Your task to perform on an android device: snooze an email in the gmail app Image 0: 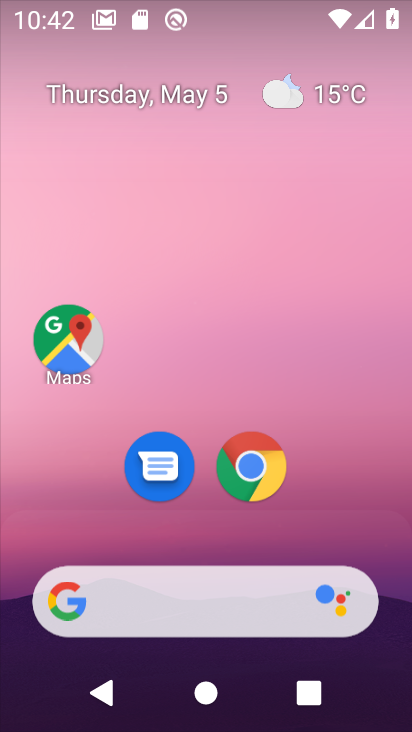
Step 0: drag from (338, 550) to (383, 309)
Your task to perform on an android device: snooze an email in the gmail app Image 1: 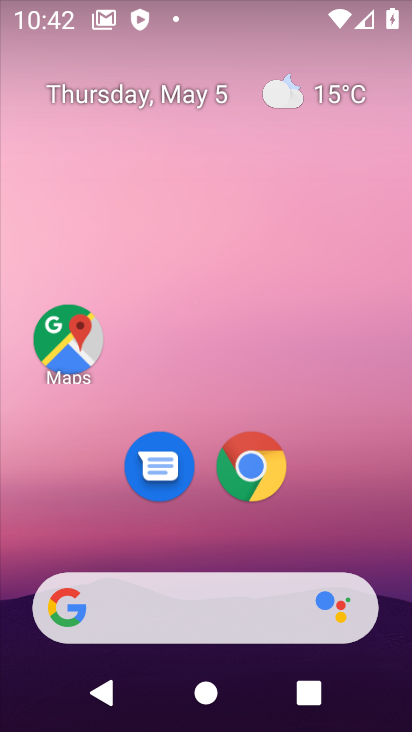
Step 1: drag from (324, 558) to (269, 45)
Your task to perform on an android device: snooze an email in the gmail app Image 2: 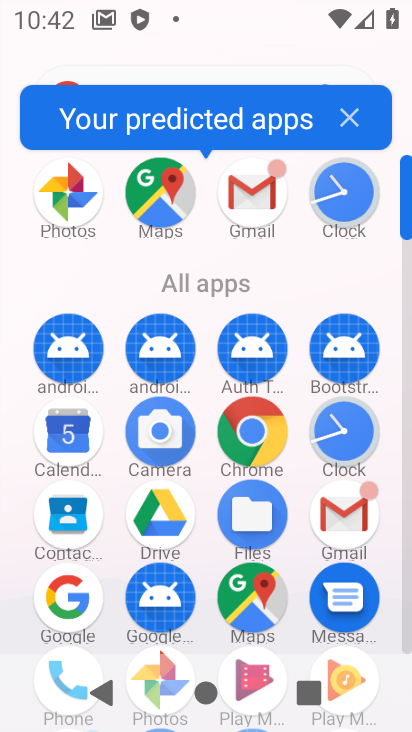
Step 2: click (343, 517)
Your task to perform on an android device: snooze an email in the gmail app Image 3: 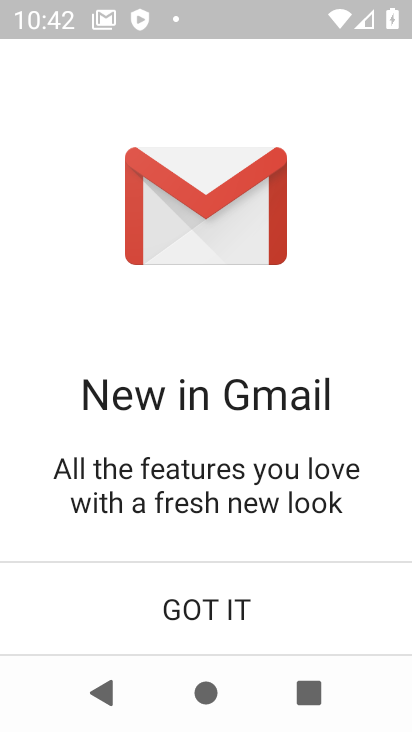
Step 3: click (292, 606)
Your task to perform on an android device: snooze an email in the gmail app Image 4: 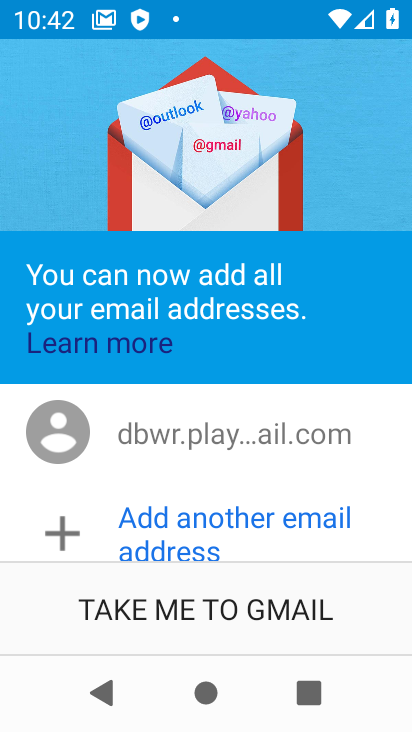
Step 4: click (220, 640)
Your task to perform on an android device: snooze an email in the gmail app Image 5: 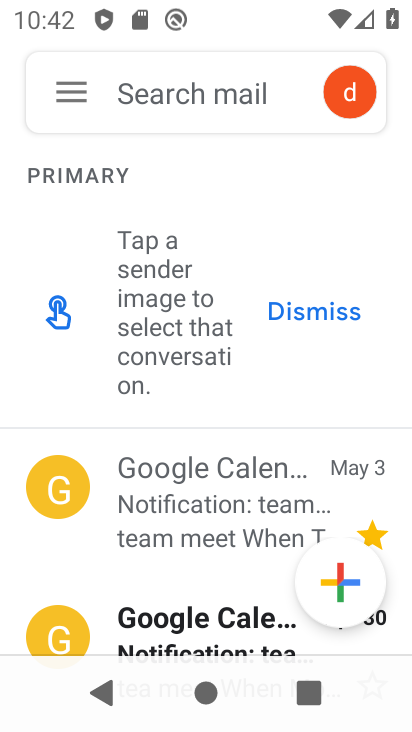
Step 5: click (232, 474)
Your task to perform on an android device: snooze an email in the gmail app Image 6: 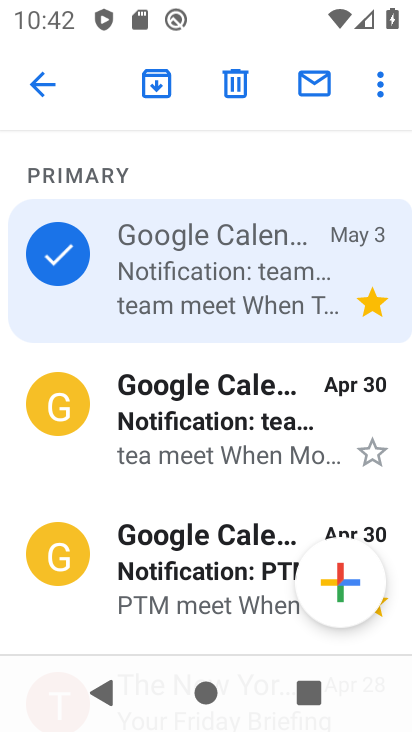
Step 6: click (383, 108)
Your task to perform on an android device: snooze an email in the gmail app Image 7: 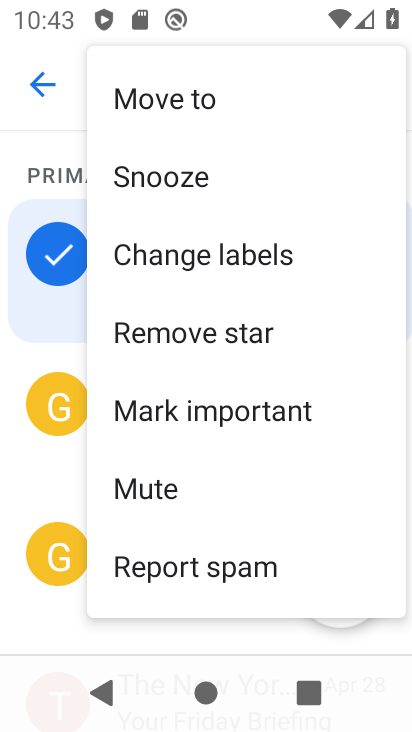
Step 7: click (205, 183)
Your task to perform on an android device: snooze an email in the gmail app Image 8: 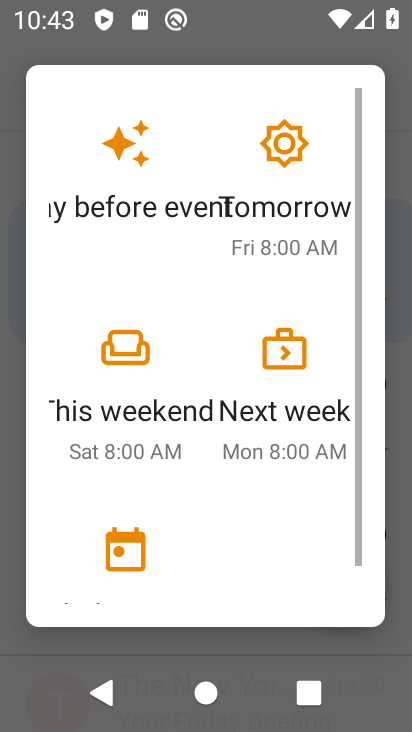
Step 8: click (275, 365)
Your task to perform on an android device: snooze an email in the gmail app Image 9: 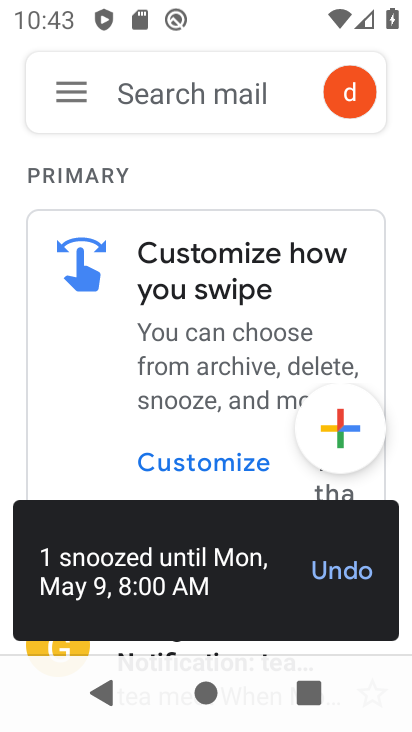
Step 9: task complete